Your task to perform on an android device: Go to calendar. Show me events next week Image 0: 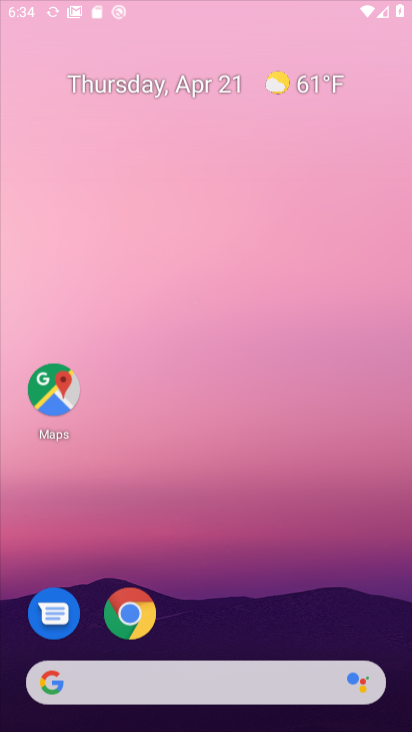
Step 0: click (217, 398)
Your task to perform on an android device: Go to calendar. Show me events next week Image 1: 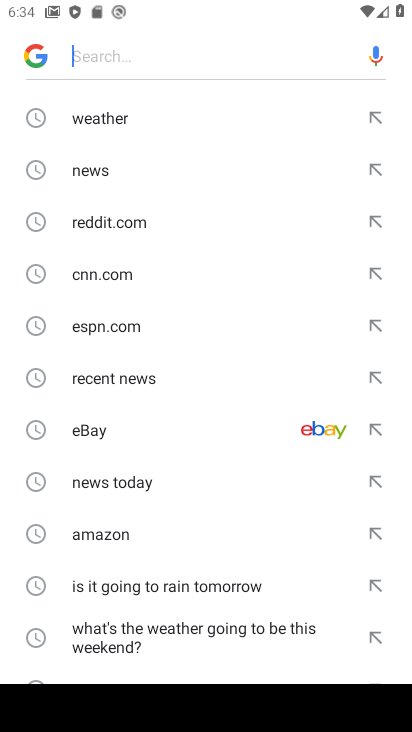
Step 1: press home button
Your task to perform on an android device: Go to calendar. Show me events next week Image 2: 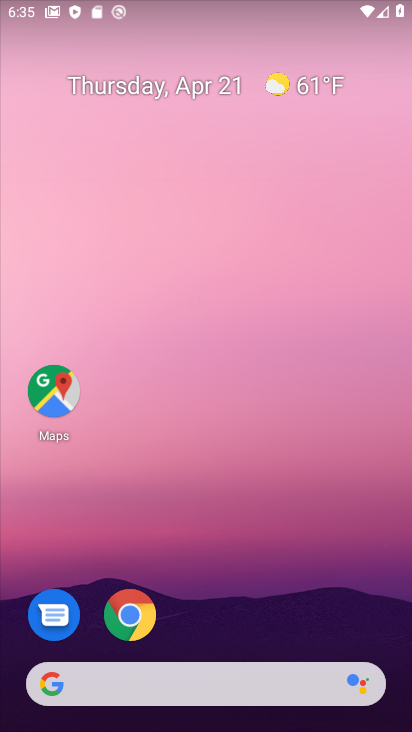
Step 2: drag from (194, 643) to (366, 105)
Your task to perform on an android device: Go to calendar. Show me events next week Image 3: 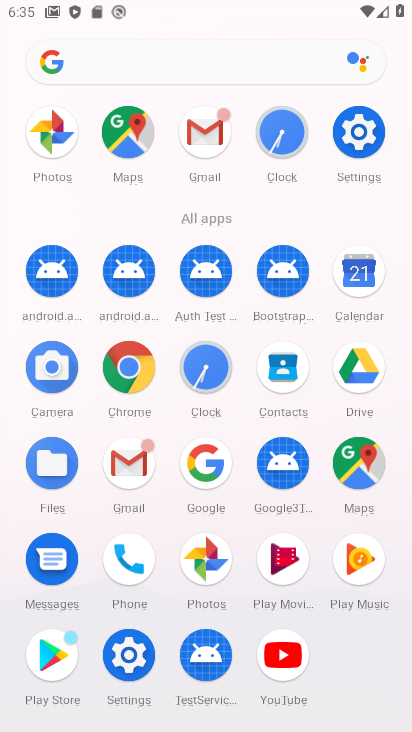
Step 3: click (362, 267)
Your task to perform on an android device: Go to calendar. Show me events next week Image 4: 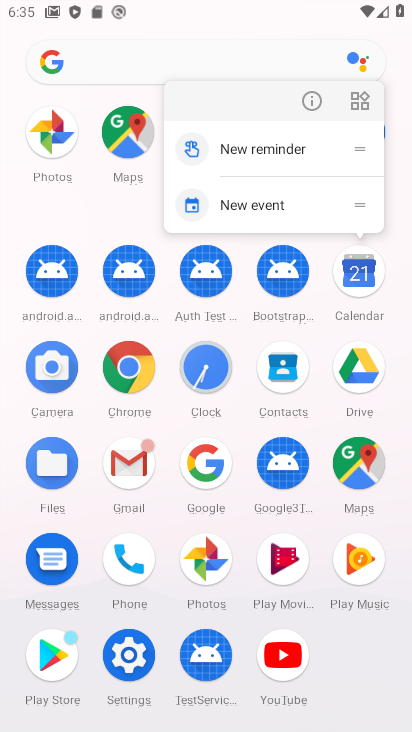
Step 4: click (306, 97)
Your task to perform on an android device: Go to calendar. Show me events next week Image 5: 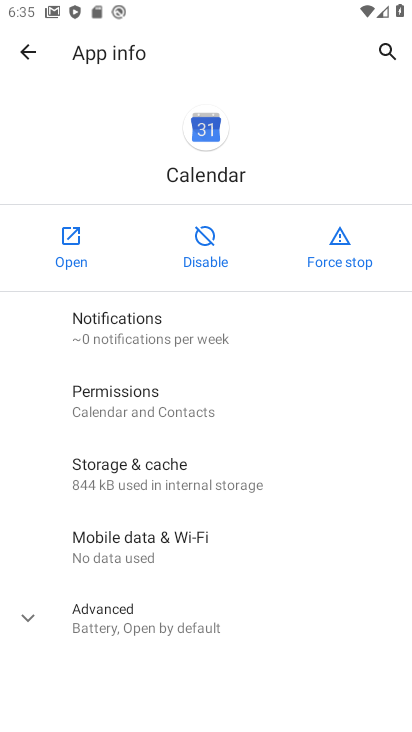
Step 5: click (70, 249)
Your task to perform on an android device: Go to calendar. Show me events next week Image 6: 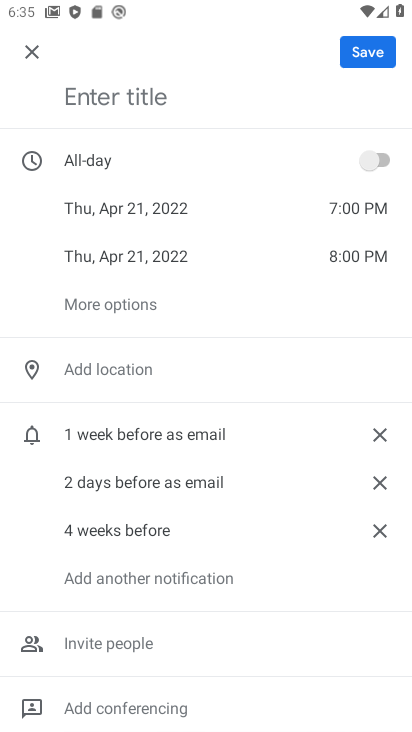
Step 6: click (35, 50)
Your task to perform on an android device: Go to calendar. Show me events next week Image 7: 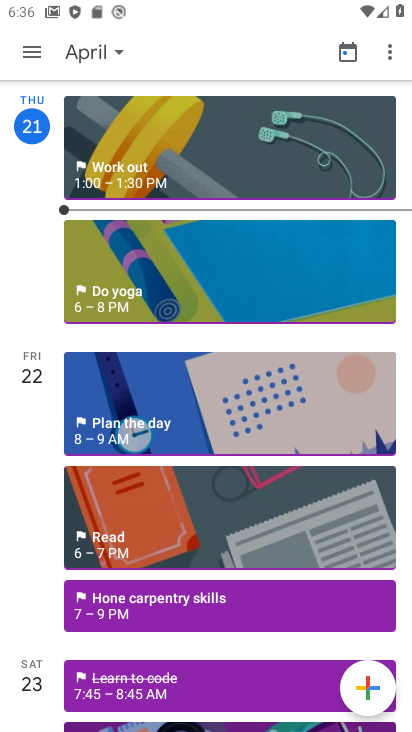
Step 7: click (94, 59)
Your task to perform on an android device: Go to calendar. Show me events next week Image 8: 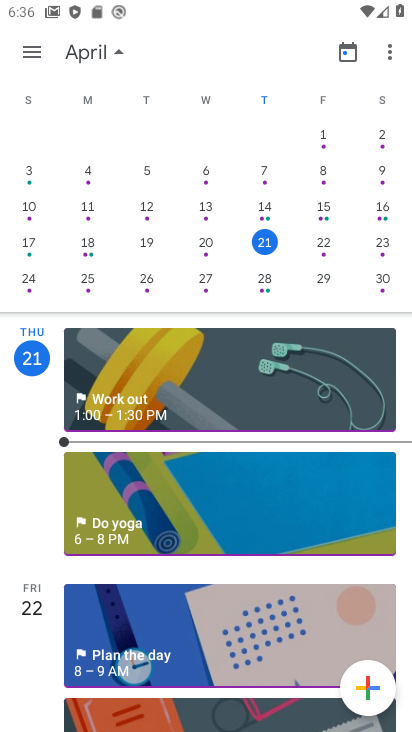
Step 8: click (155, 275)
Your task to perform on an android device: Go to calendar. Show me events next week Image 9: 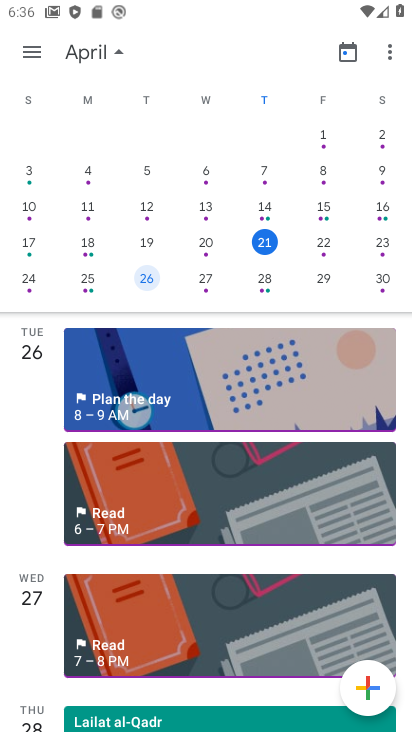
Step 9: task complete